Your task to perform on an android device: change the clock display to digital Image 0: 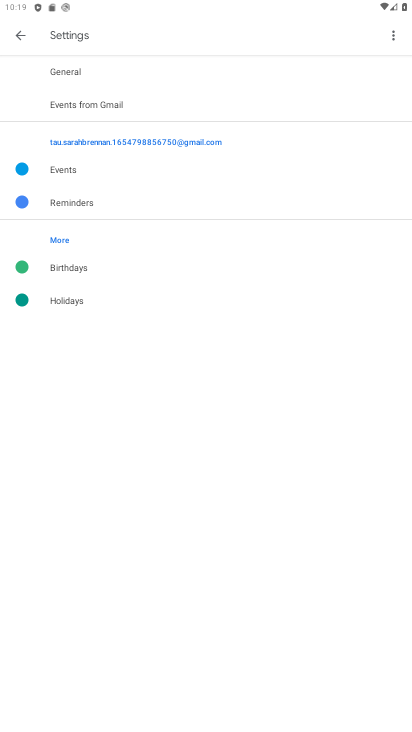
Step 0: press home button
Your task to perform on an android device: change the clock display to digital Image 1: 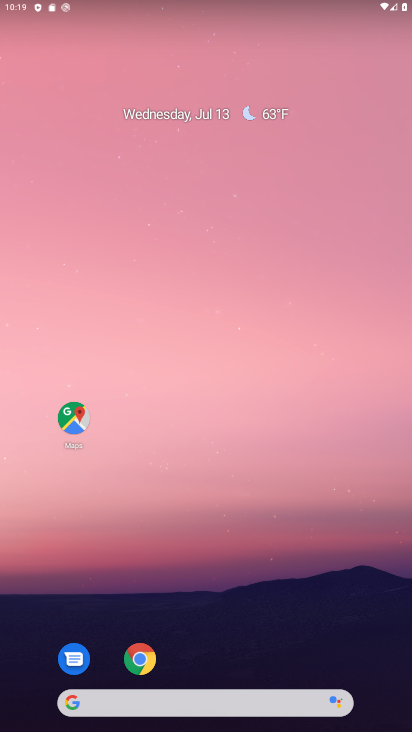
Step 1: drag from (234, 583) to (280, 148)
Your task to perform on an android device: change the clock display to digital Image 2: 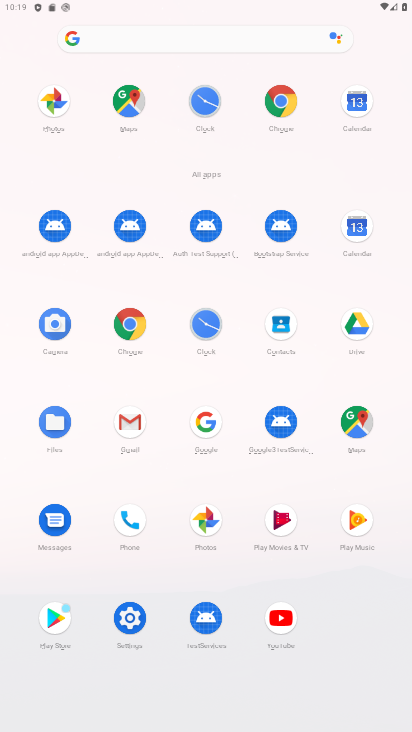
Step 2: click (204, 331)
Your task to perform on an android device: change the clock display to digital Image 3: 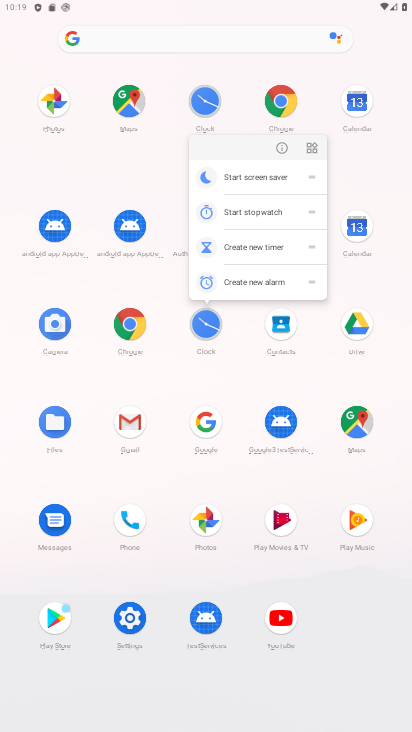
Step 3: click (205, 325)
Your task to perform on an android device: change the clock display to digital Image 4: 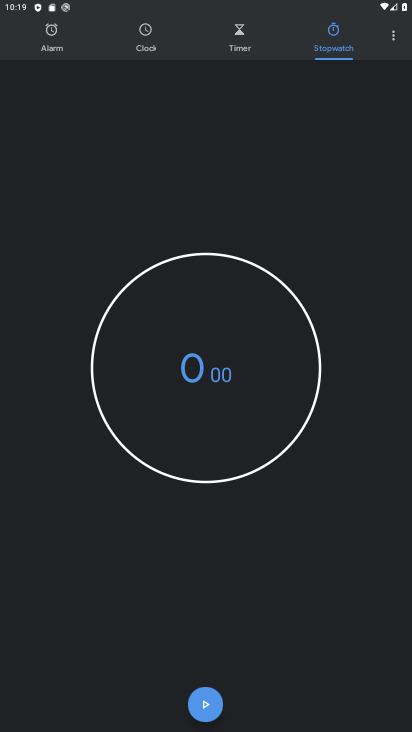
Step 4: click (397, 41)
Your task to perform on an android device: change the clock display to digital Image 5: 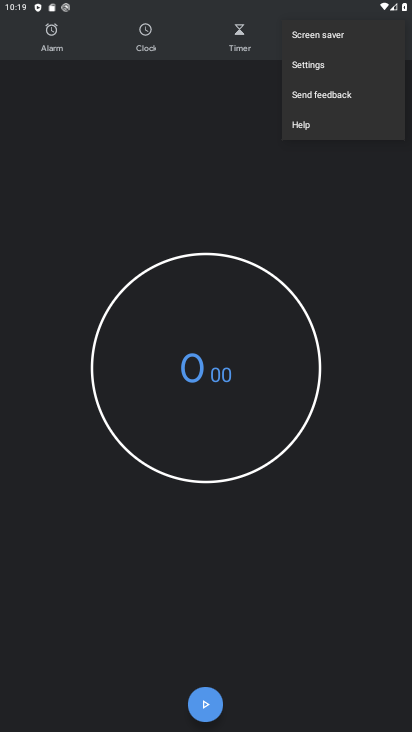
Step 5: click (317, 67)
Your task to perform on an android device: change the clock display to digital Image 6: 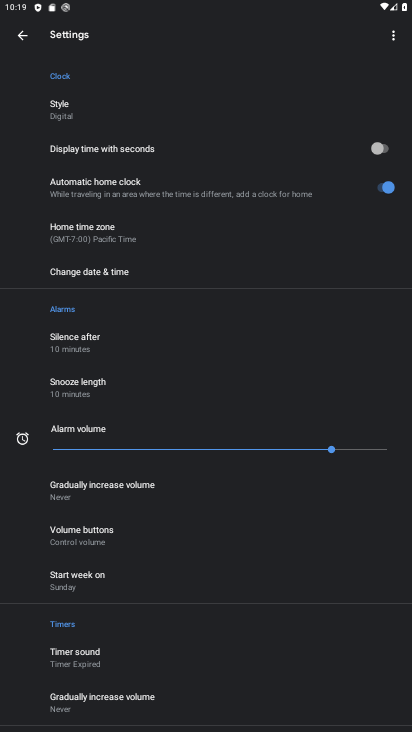
Step 6: task complete